Your task to perform on an android device: Add razer blade to the cart on target, then select checkout. Image 0: 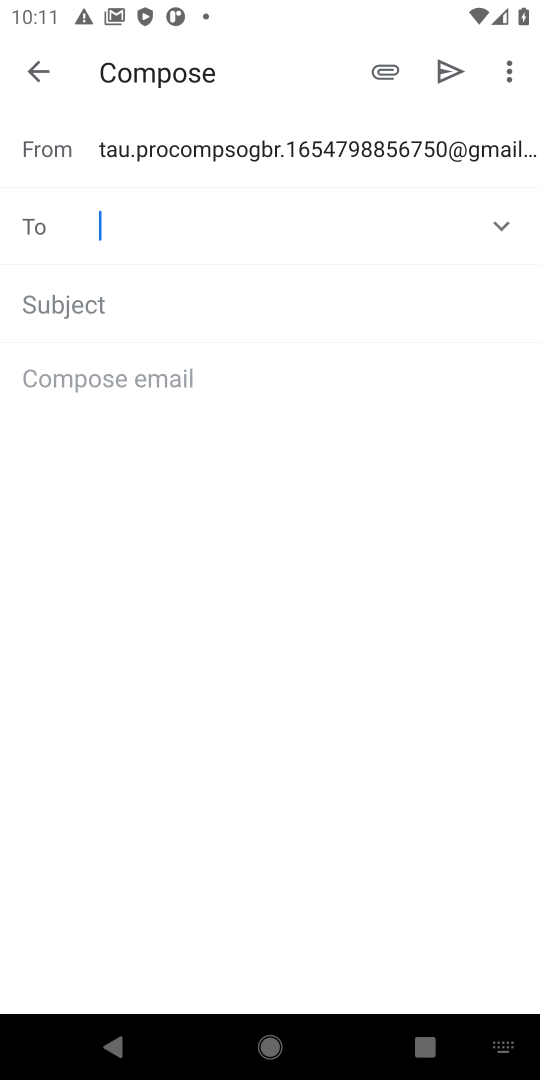
Step 0: press home button
Your task to perform on an android device: Add razer blade to the cart on target, then select checkout. Image 1: 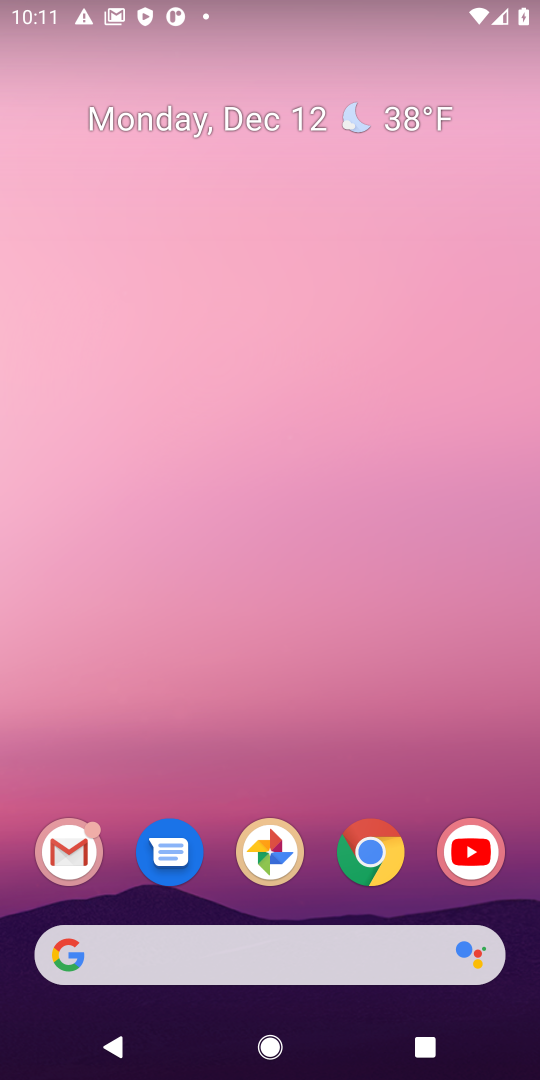
Step 1: drag from (228, 928) to (262, 209)
Your task to perform on an android device: Add razer blade to the cart on target, then select checkout. Image 2: 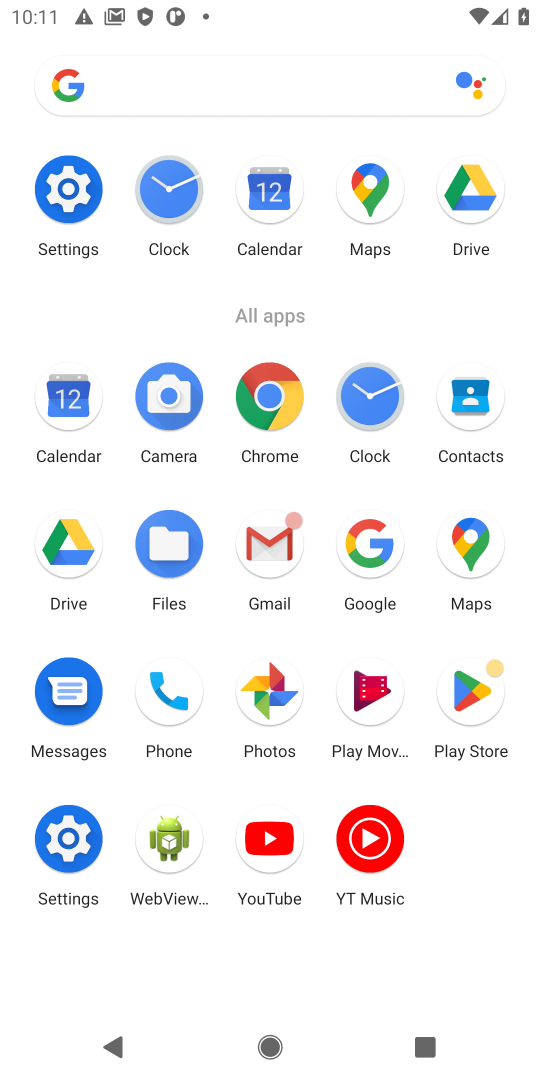
Step 2: click (361, 544)
Your task to perform on an android device: Add razer blade to the cart on target, then select checkout. Image 3: 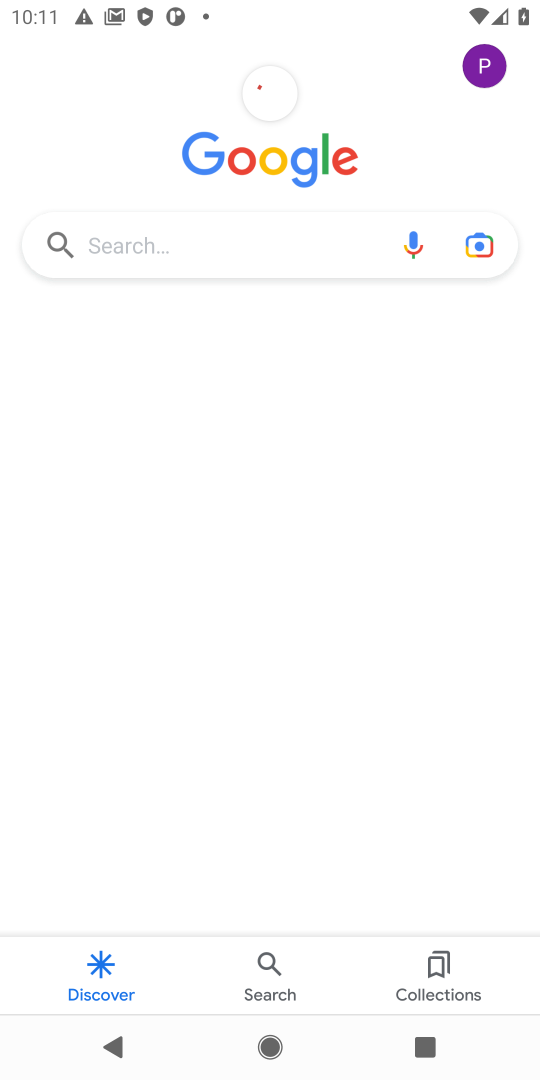
Step 3: click (292, 240)
Your task to perform on an android device: Add razer blade to the cart on target, then select checkout. Image 4: 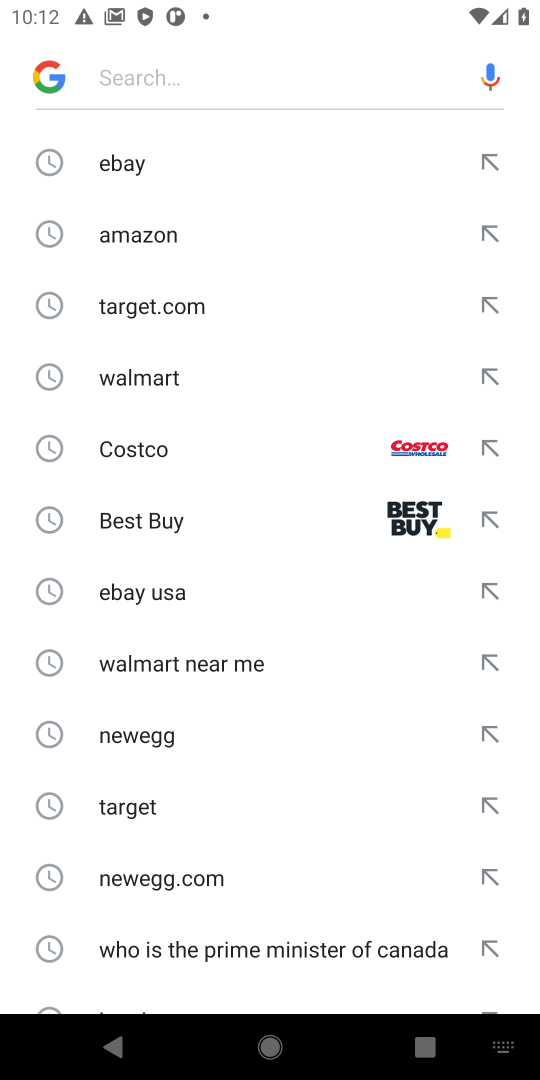
Step 4: click (116, 802)
Your task to perform on an android device: Add razer blade to the cart on target, then select checkout. Image 5: 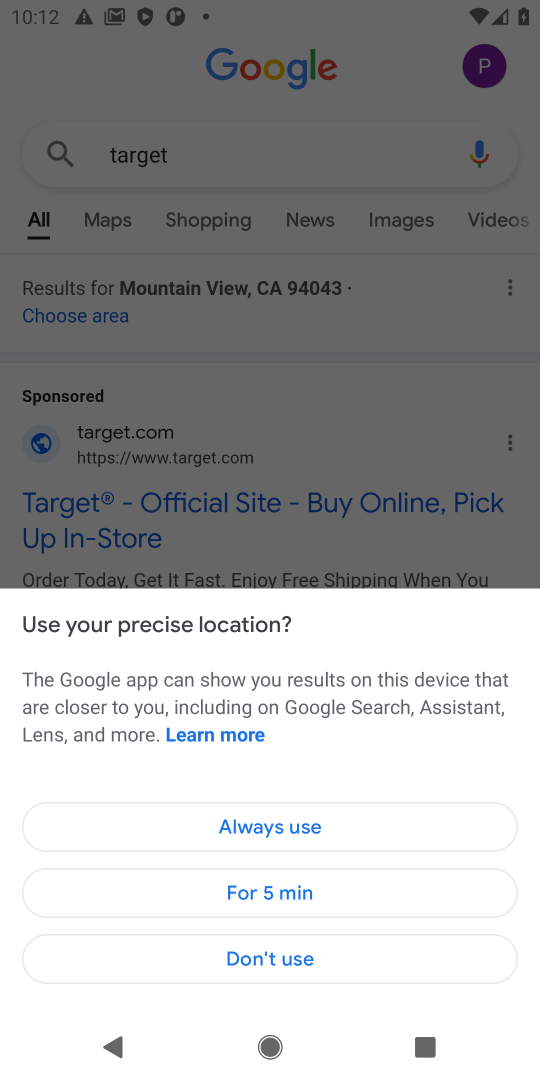
Step 5: click (237, 965)
Your task to perform on an android device: Add razer blade to the cart on target, then select checkout. Image 6: 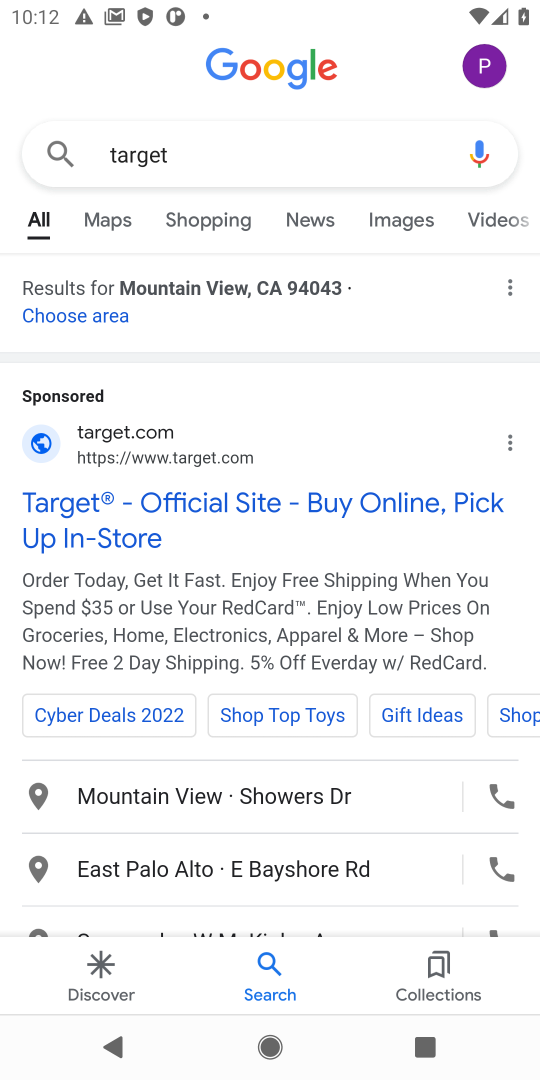
Step 6: click (157, 510)
Your task to perform on an android device: Add razer blade to the cart on target, then select checkout. Image 7: 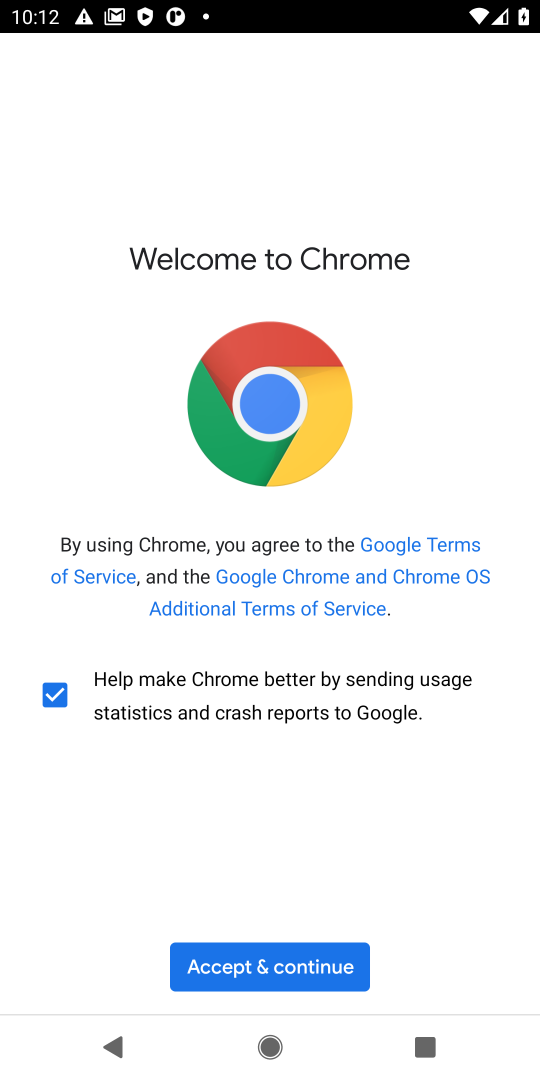
Step 7: click (303, 974)
Your task to perform on an android device: Add razer blade to the cart on target, then select checkout. Image 8: 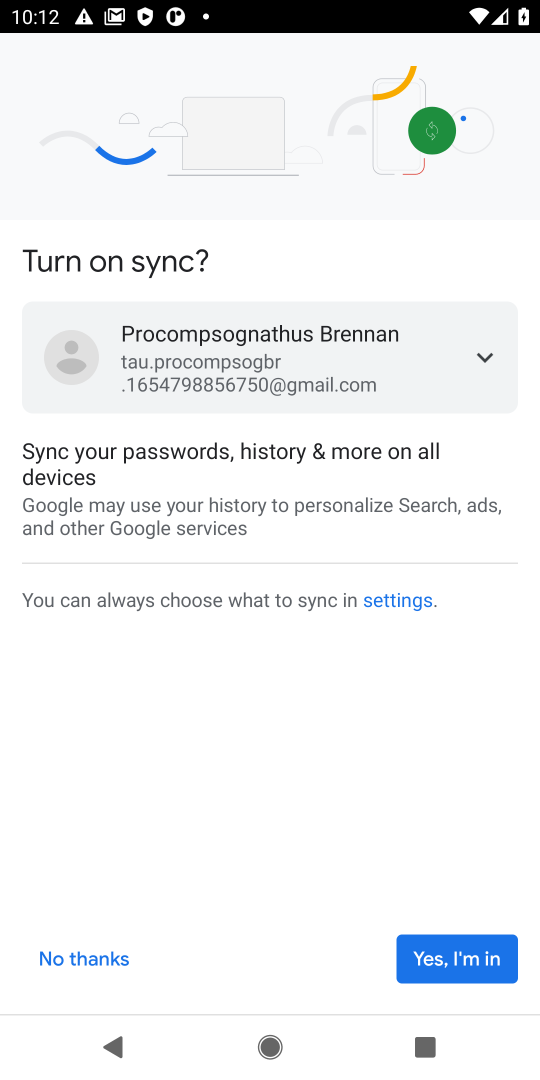
Step 8: click (444, 960)
Your task to perform on an android device: Add razer blade to the cart on target, then select checkout. Image 9: 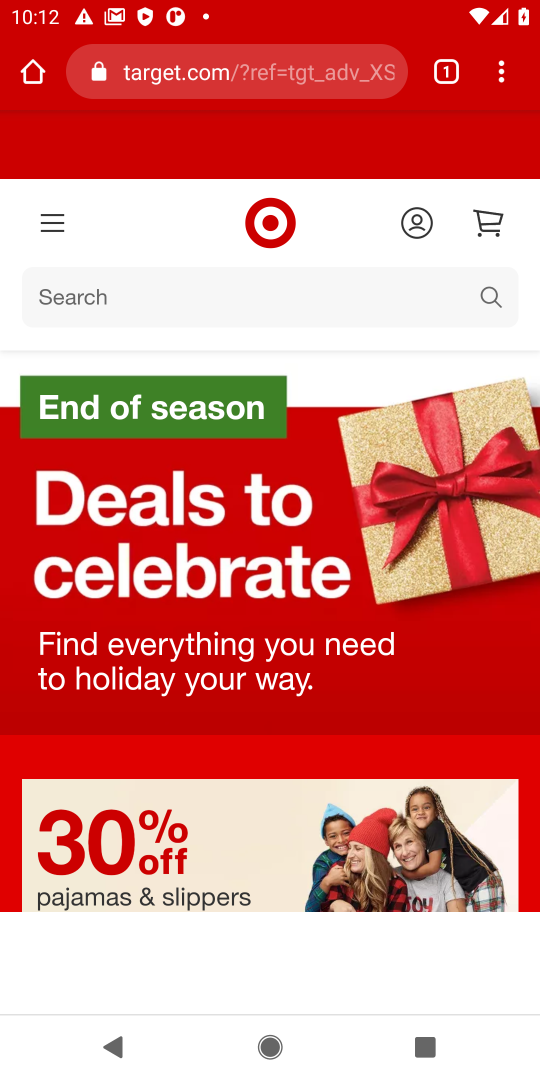
Step 9: click (287, 321)
Your task to perform on an android device: Add razer blade to the cart on target, then select checkout. Image 10: 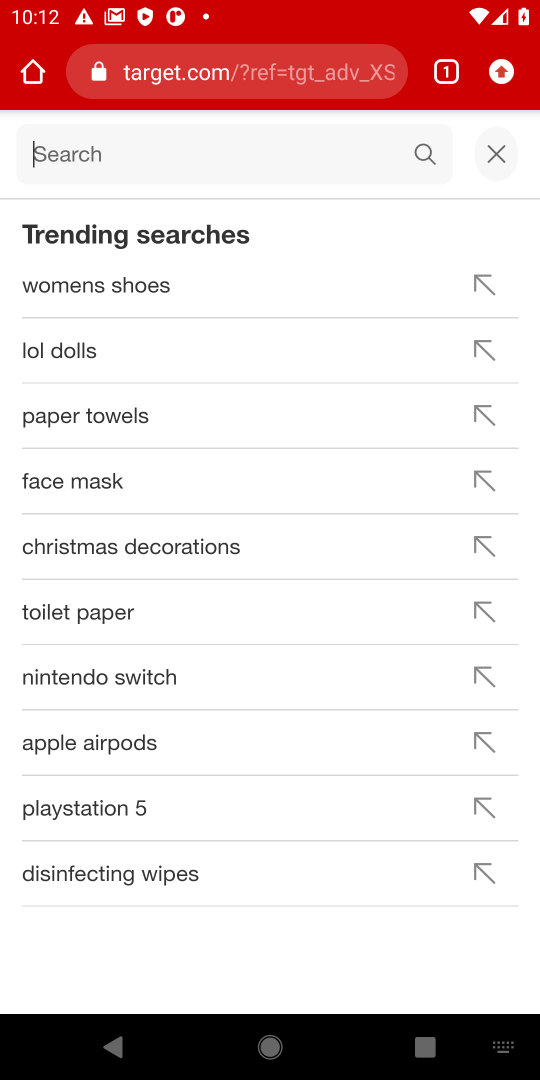
Step 10: click (306, 154)
Your task to perform on an android device: Add razer blade to the cart on target, then select checkout. Image 11: 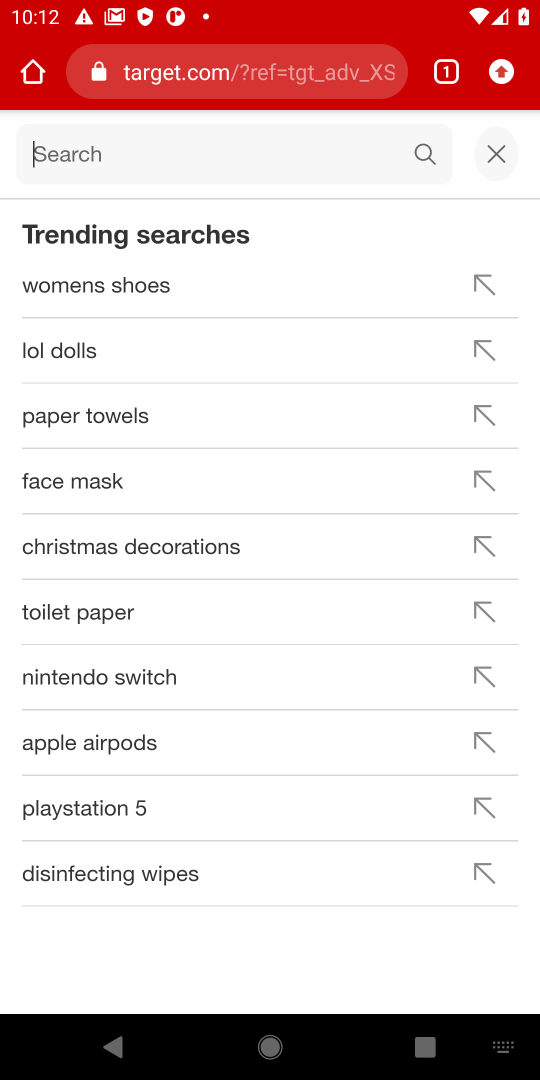
Step 11: type "razer blade"
Your task to perform on an android device: Add razer blade to the cart on target, then select checkout. Image 12: 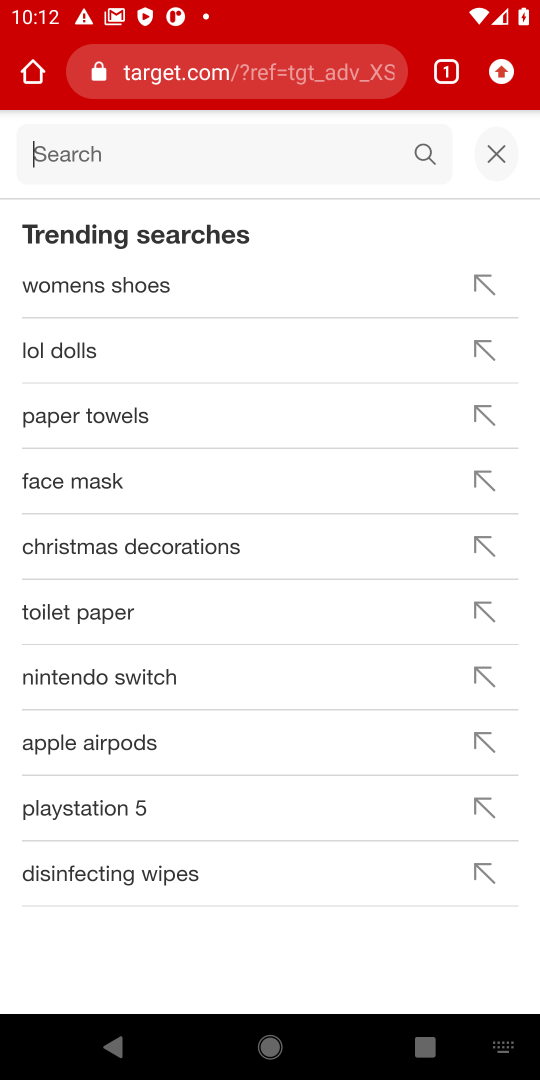
Step 12: click (429, 148)
Your task to perform on an android device: Add razer blade to the cart on target, then select checkout. Image 13: 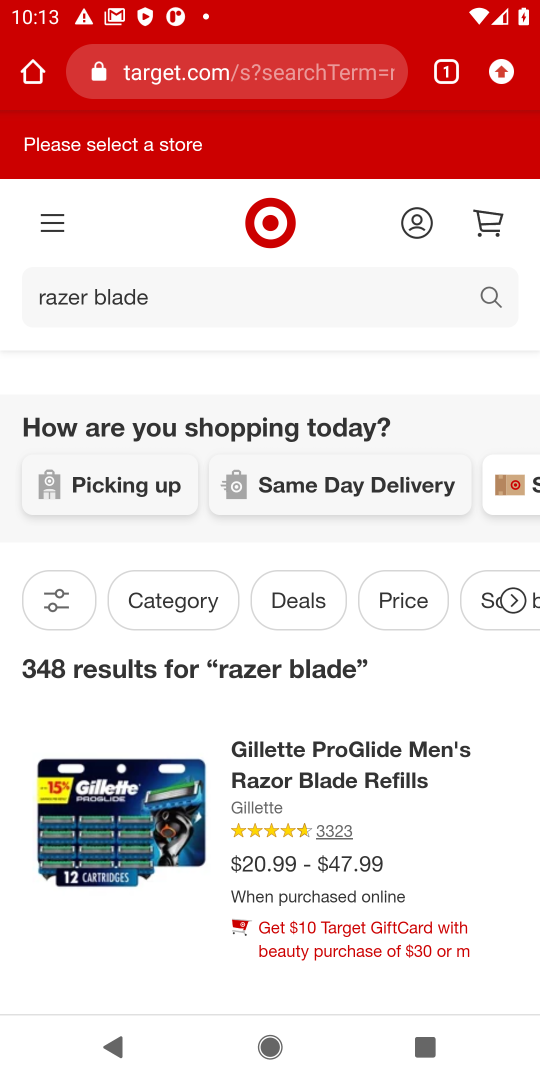
Step 13: drag from (291, 857) to (320, 473)
Your task to perform on an android device: Add razer blade to the cart on target, then select checkout. Image 14: 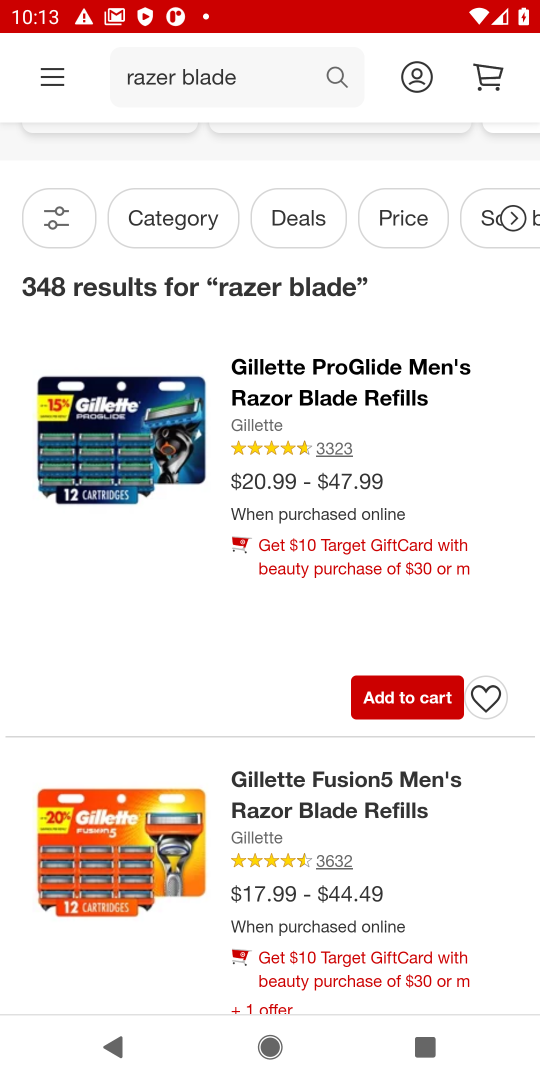
Step 14: click (404, 697)
Your task to perform on an android device: Add razer blade to the cart on target, then select checkout. Image 15: 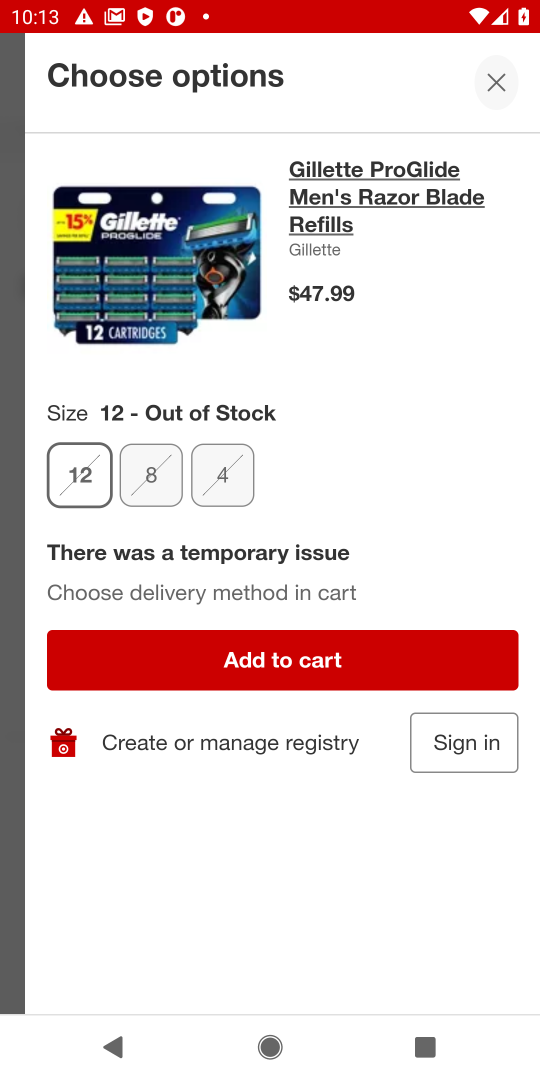
Step 15: click (349, 655)
Your task to perform on an android device: Add razer blade to the cart on target, then select checkout. Image 16: 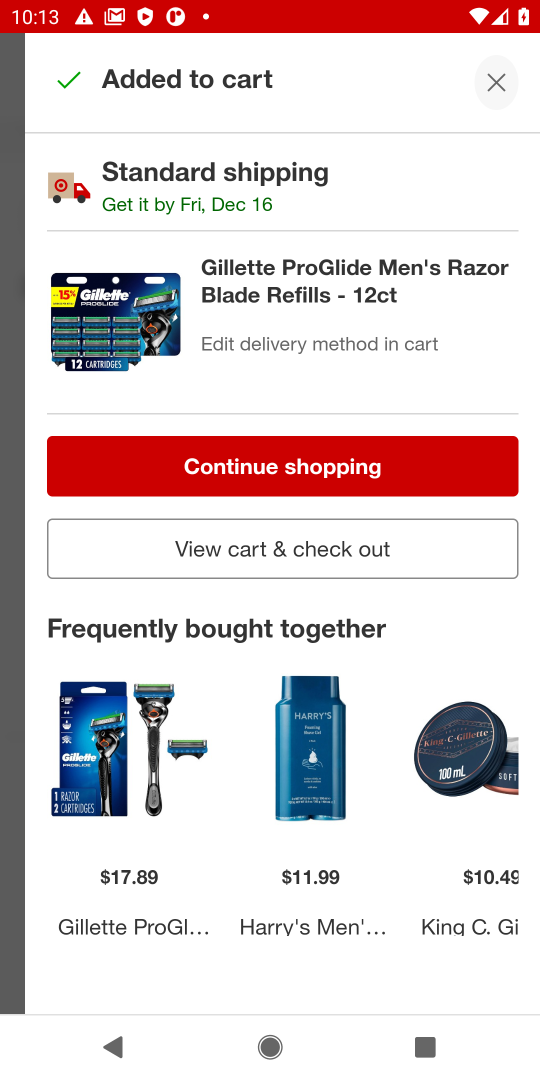
Step 16: click (329, 557)
Your task to perform on an android device: Add razer blade to the cart on target, then select checkout. Image 17: 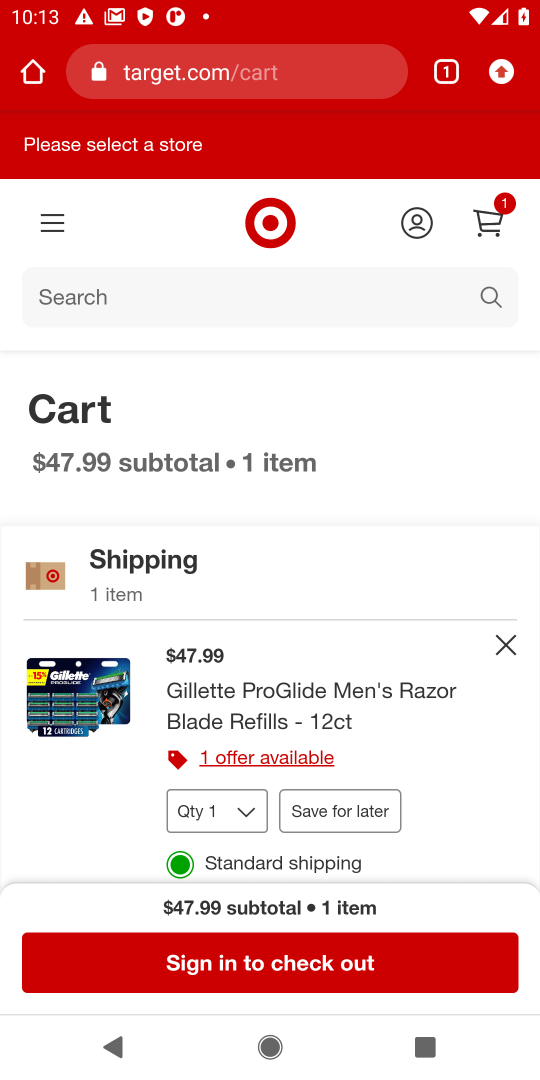
Step 17: click (303, 957)
Your task to perform on an android device: Add razer blade to the cart on target, then select checkout. Image 18: 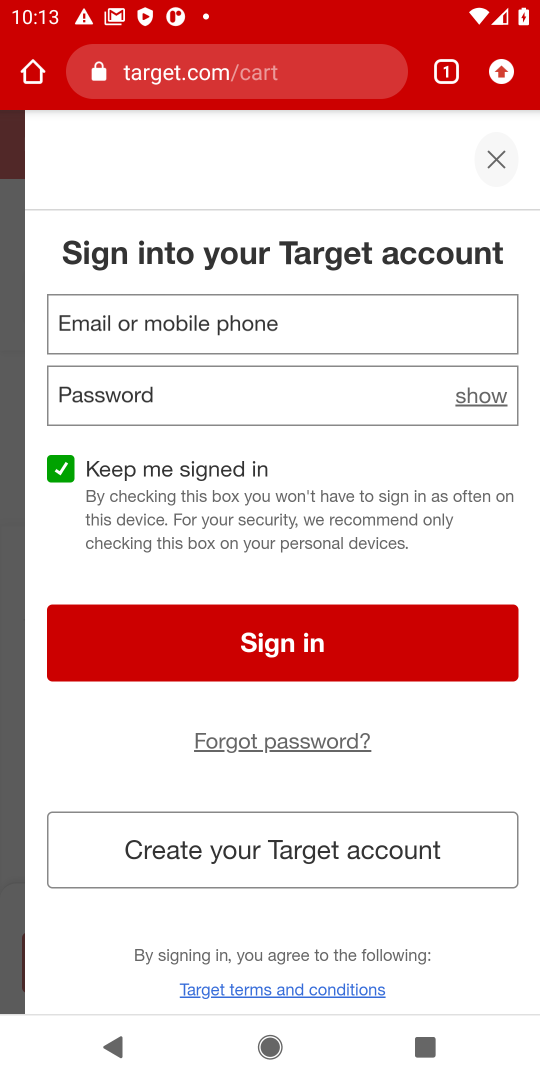
Step 18: task complete